Your task to perform on an android device: Search for Italian restaurants on Maps Image 0: 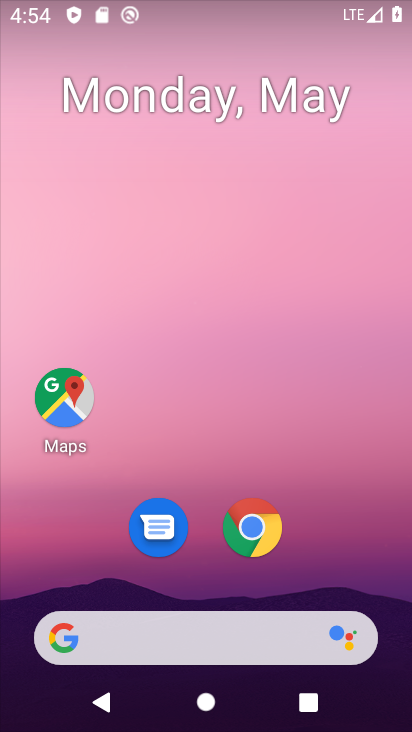
Step 0: click (73, 402)
Your task to perform on an android device: Search for Italian restaurants on Maps Image 1: 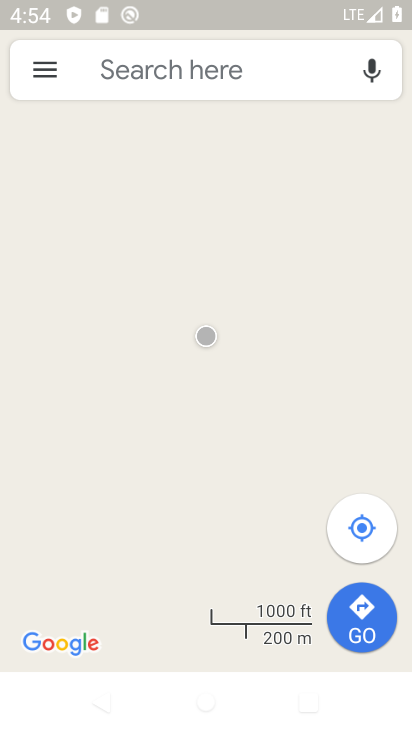
Step 1: click (140, 72)
Your task to perform on an android device: Search for Italian restaurants on Maps Image 2: 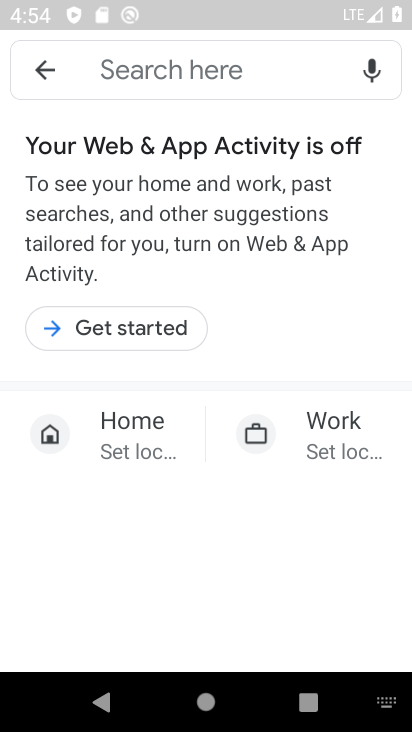
Step 2: type "Italian restaurants "
Your task to perform on an android device: Search for Italian restaurants on Maps Image 3: 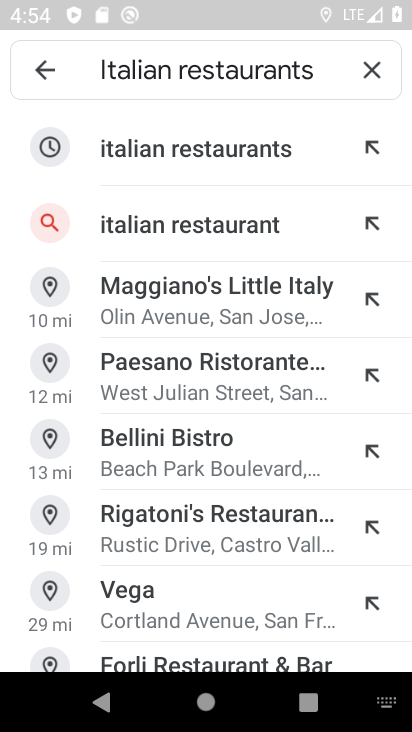
Step 3: click (146, 153)
Your task to perform on an android device: Search for Italian restaurants on Maps Image 4: 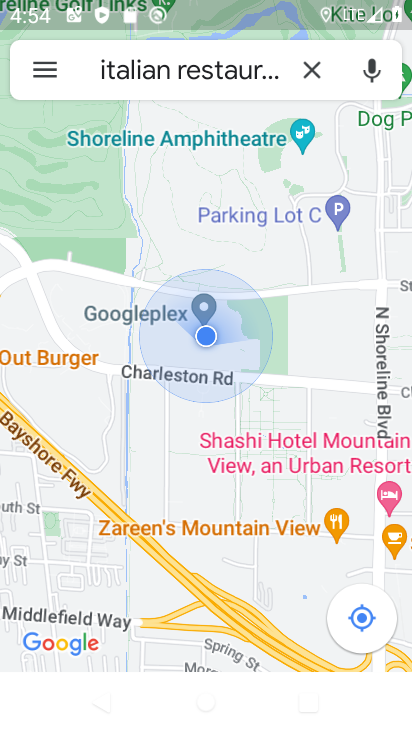
Step 4: task complete